Your task to perform on an android device: Go to wifi settings Image 0: 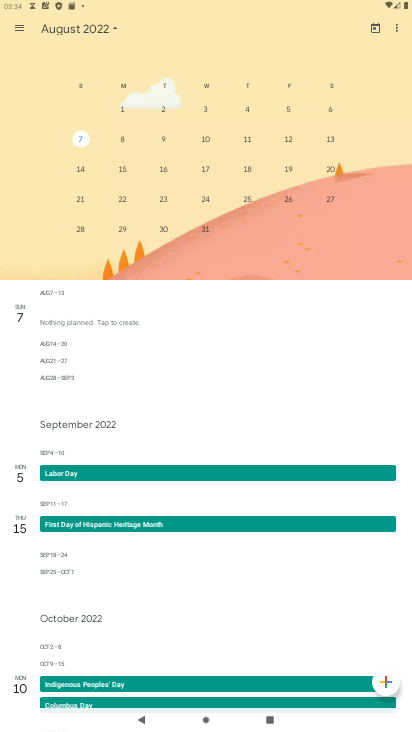
Step 0: press home button
Your task to perform on an android device: Go to wifi settings Image 1: 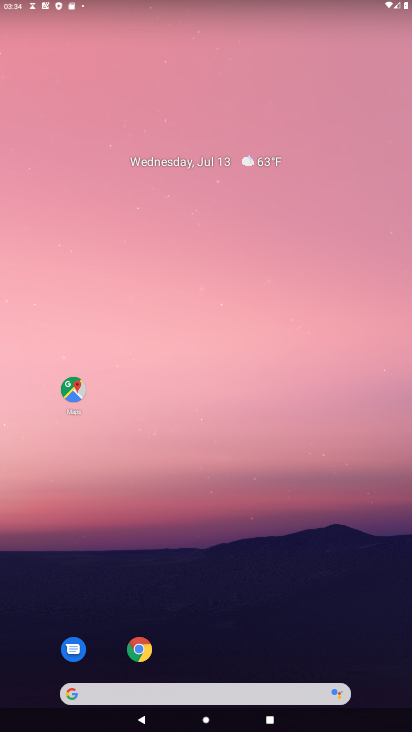
Step 1: drag from (223, 563) to (211, 55)
Your task to perform on an android device: Go to wifi settings Image 2: 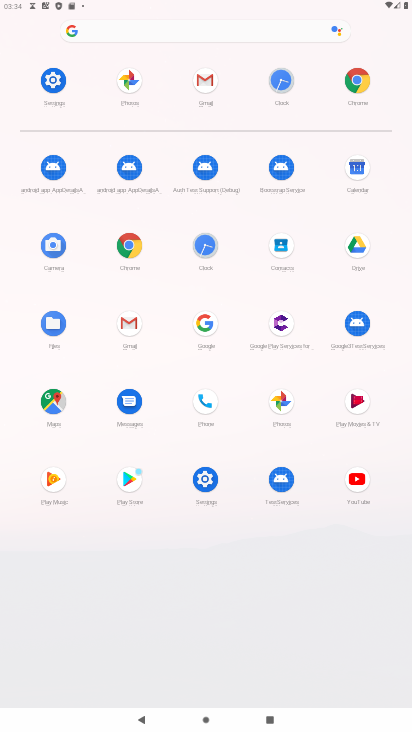
Step 2: click (53, 86)
Your task to perform on an android device: Go to wifi settings Image 3: 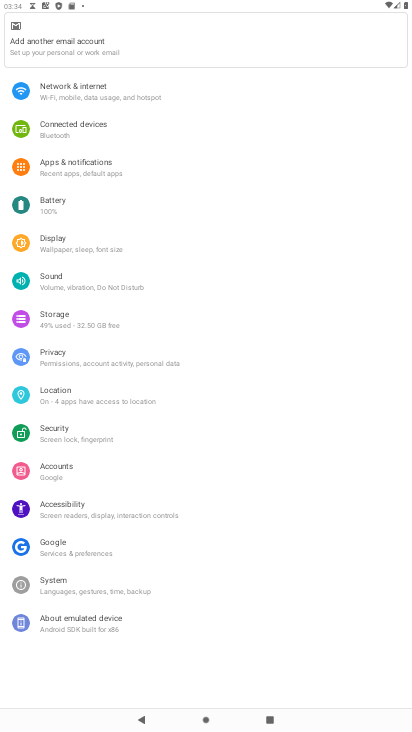
Step 3: click (76, 91)
Your task to perform on an android device: Go to wifi settings Image 4: 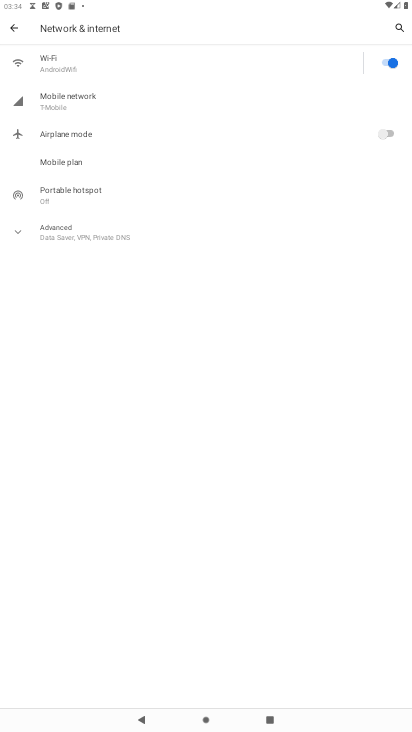
Step 4: task complete